Your task to perform on an android device: Show me recent news Image 0: 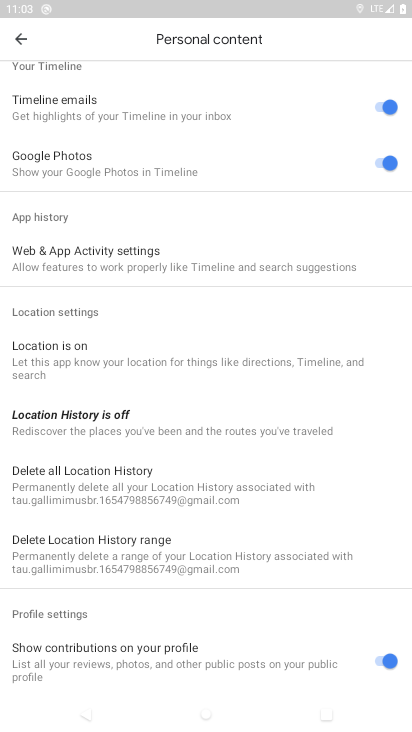
Step 0: press home button
Your task to perform on an android device: Show me recent news Image 1: 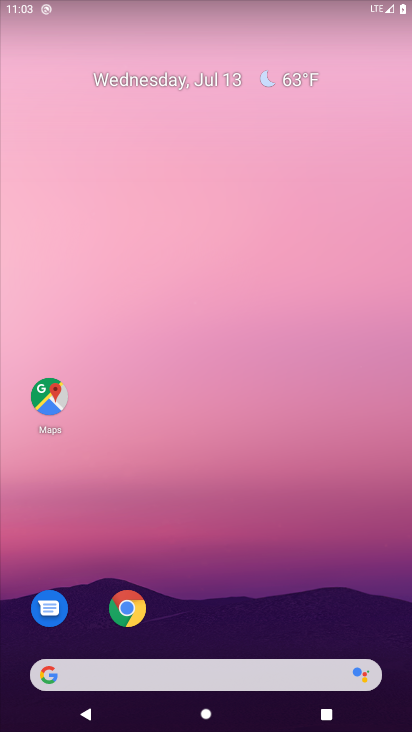
Step 1: drag from (239, 608) to (274, 110)
Your task to perform on an android device: Show me recent news Image 2: 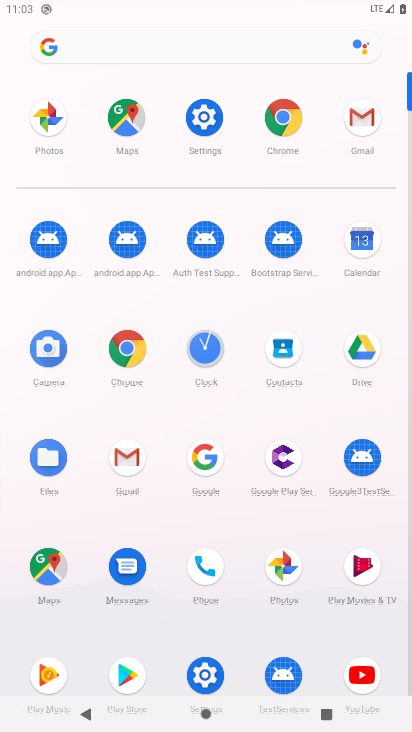
Step 2: click (123, 350)
Your task to perform on an android device: Show me recent news Image 3: 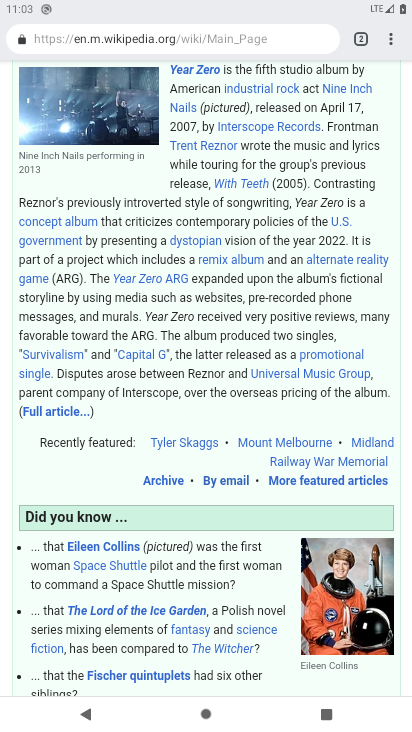
Step 3: click (262, 41)
Your task to perform on an android device: Show me recent news Image 4: 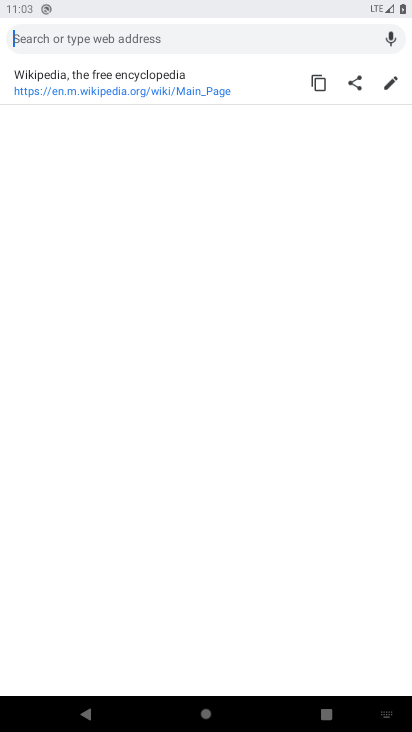
Step 4: type "Show me recent news"
Your task to perform on an android device: Show me recent news Image 5: 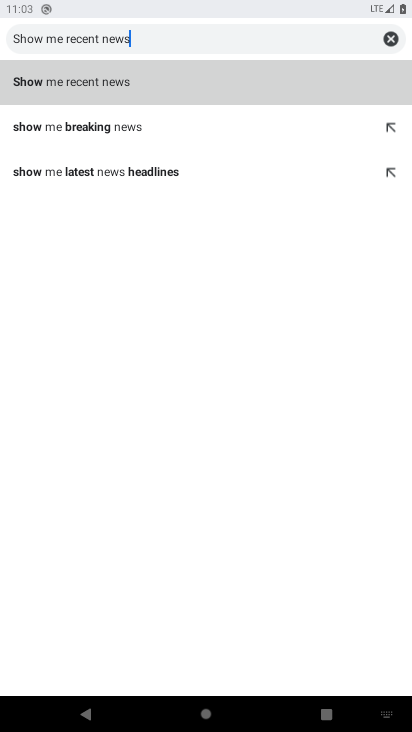
Step 5: click (97, 74)
Your task to perform on an android device: Show me recent news Image 6: 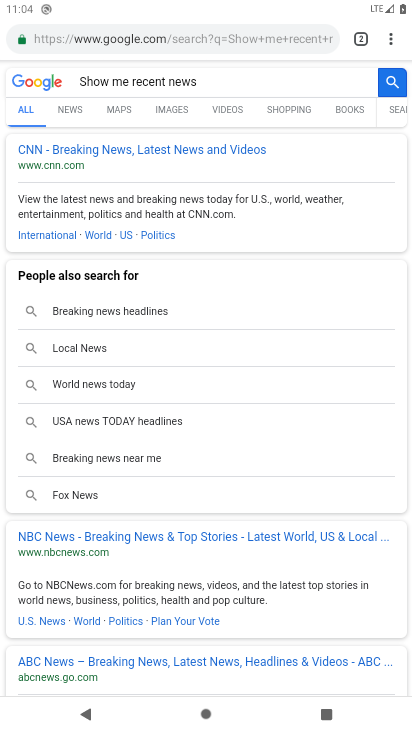
Step 6: click (71, 110)
Your task to perform on an android device: Show me recent news Image 7: 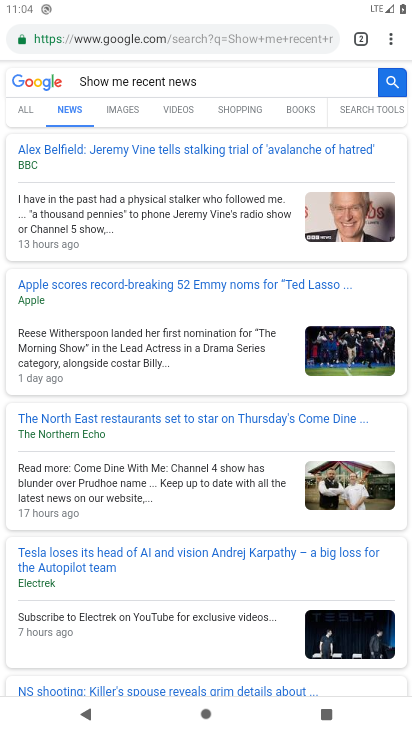
Step 7: task complete